Your task to perform on an android device: star an email in the gmail app Image 0: 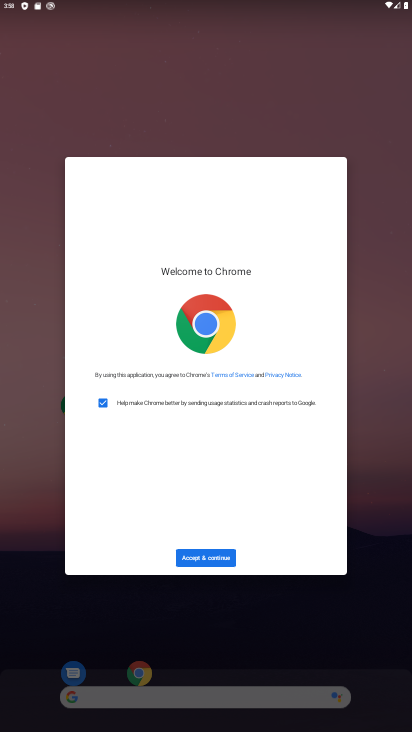
Step 0: press home button
Your task to perform on an android device: star an email in the gmail app Image 1: 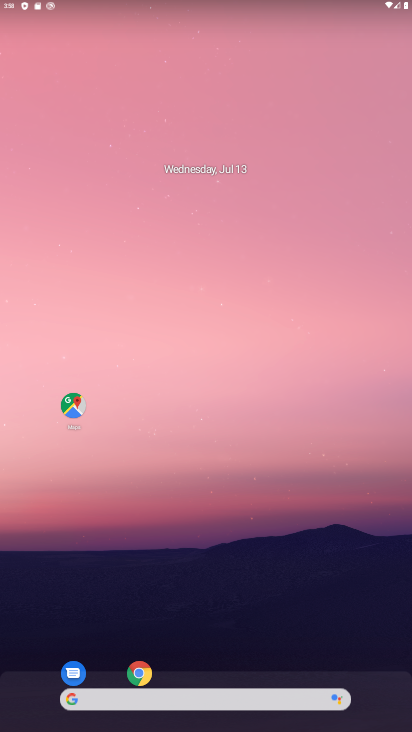
Step 1: drag from (253, 564) to (257, 97)
Your task to perform on an android device: star an email in the gmail app Image 2: 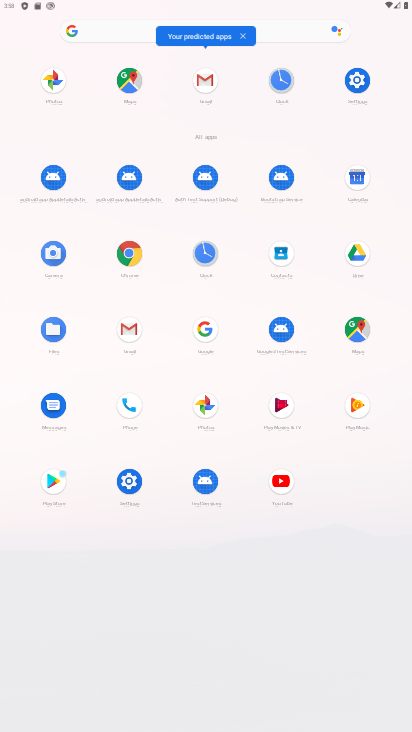
Step 2: click (203, 87)
Your task to perform on an android device: star an email in the gmail app Image 3: 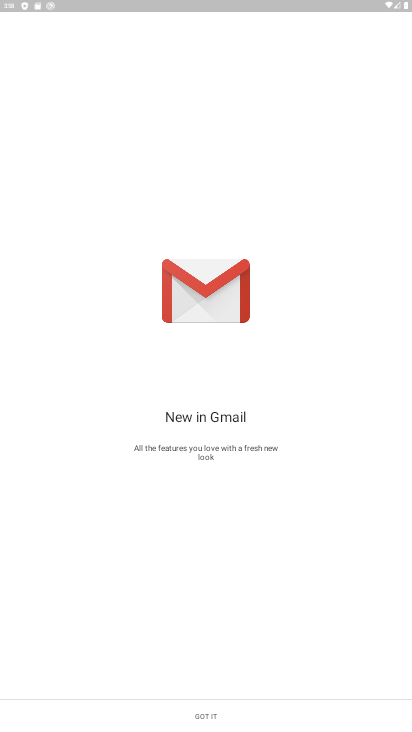
Step 3: click (264, 715)
Your task to perform on an android device: star an email in the gmail app Image 4: 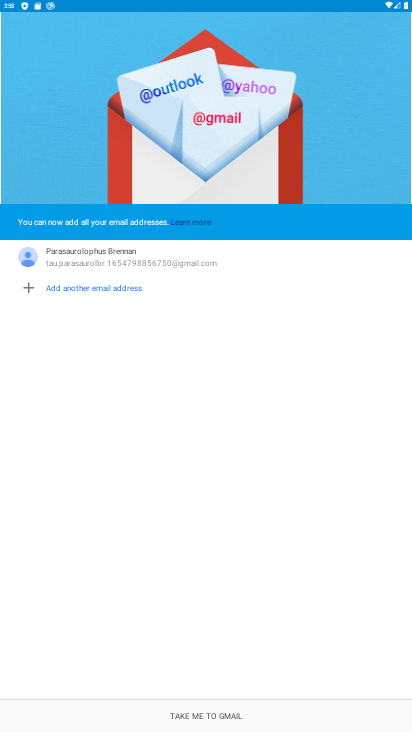
Step 4: click (264, 715)
Your task to perform on an android device: star an email in the gmail app Image 5: 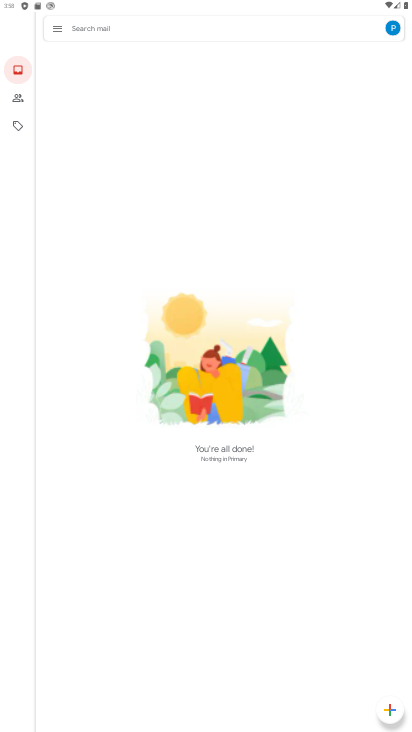
Step 5: click (62, 27)
Your task to perform on an android device: star an email in the gmail app Image 6: 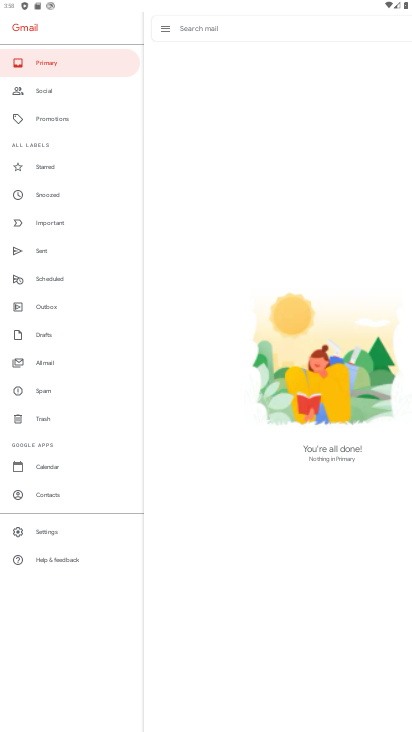
Step 6: click (52, 361)
Your task to perform on an android device: star an email in the gmail app Image 7: 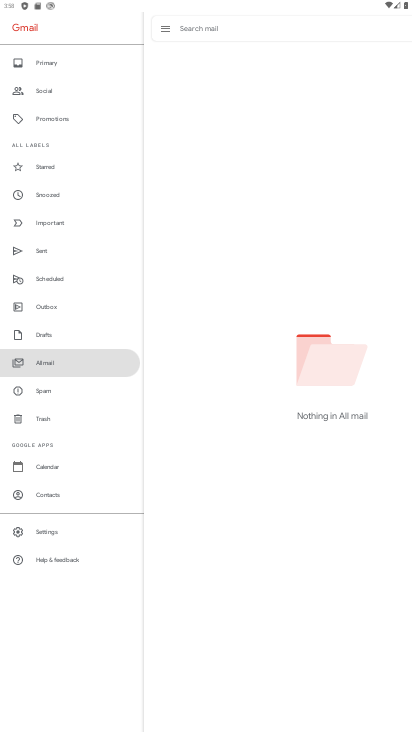
Step 7: task complete